Your task to perform on an android device: add a contact Image 0: 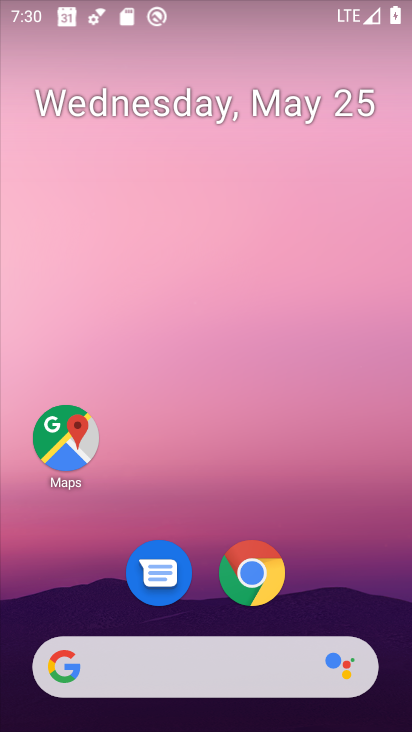
Step 0: click (254, 570)
Your task to perform on an android device: add a contact Image 1: 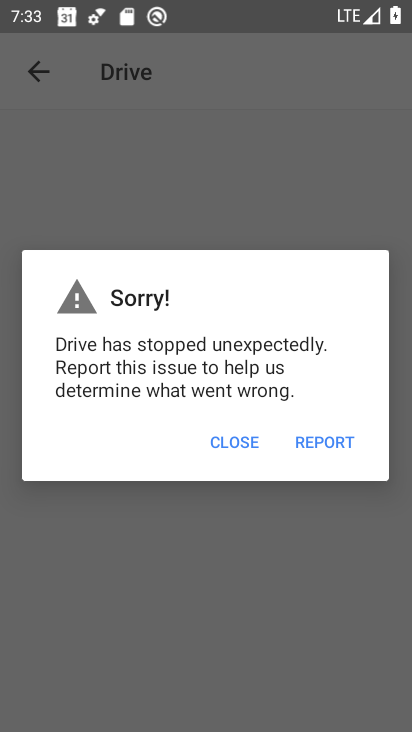
Step 1: press home button
Your task to perform on an android device: add a contact Image 2: 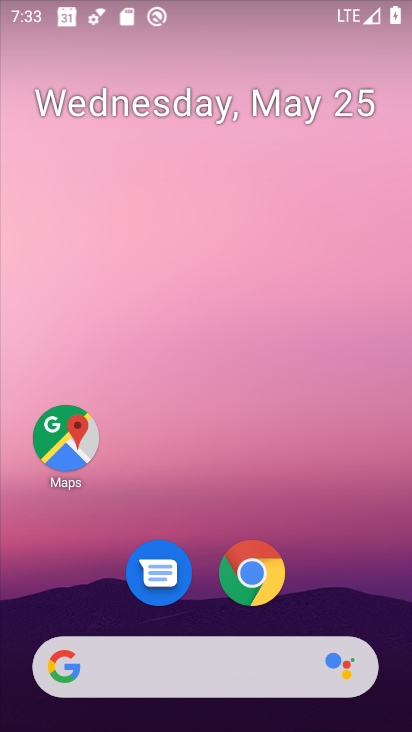
Step 2: drag from (387, 684) to (360, 122)
Your task to perform on an android device: add a contact Image 3: 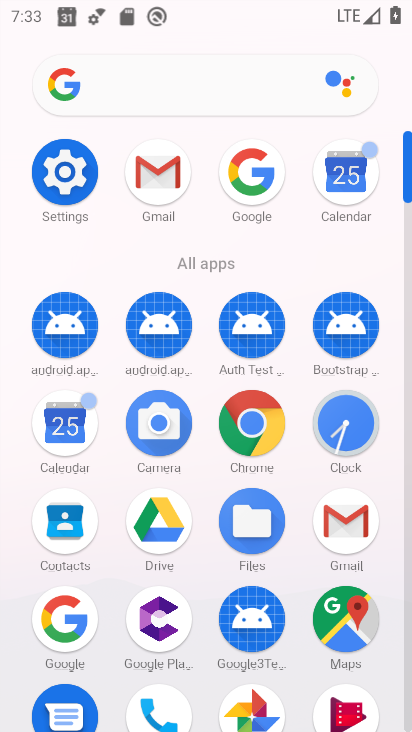
Step 3: click (71, 527)
Your task to perform on an android device: add a contact Image 4: 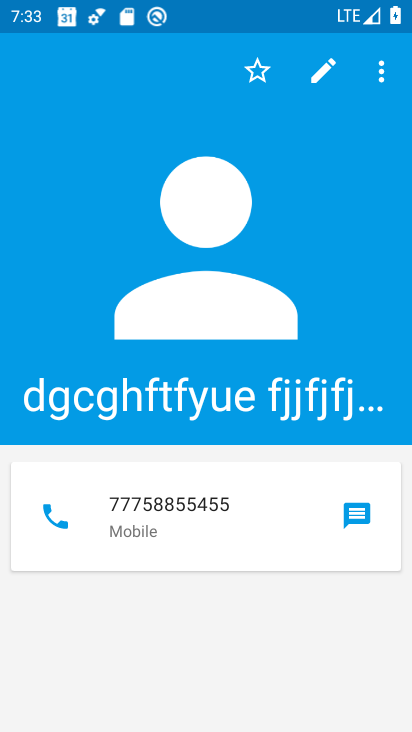
Step 4: press back button
Your task to perform on an android device: add a contact Image 5: 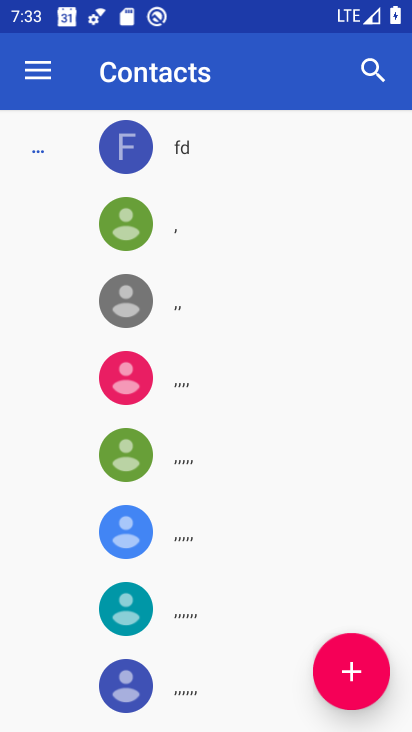
Step 5: click (328, 677)
Your task to perform on an android device: add a contact Image 6: 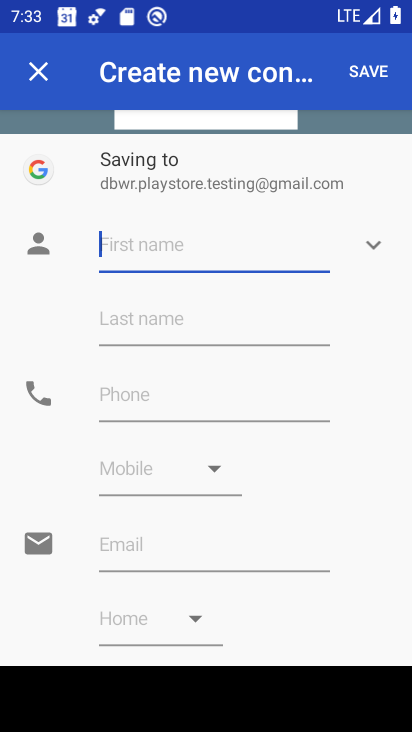
Step 6: type "sfdgvbn"
Your task to perform on an android device: add a contact Image 7: 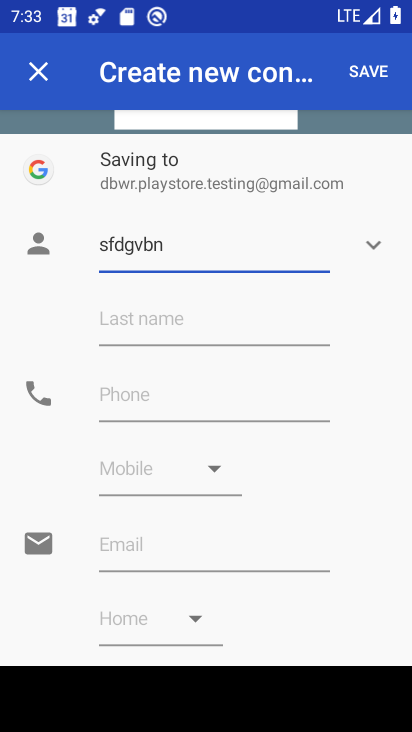
Step 7: click (240, 334)
Your task to perform on an android device: add a contact Image 8: 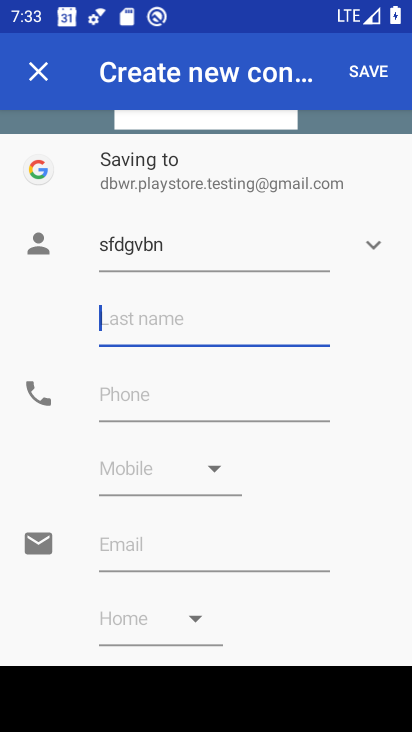
Step 8: type "rghm"
Your task to perform on an android device: add a contact Image 9: 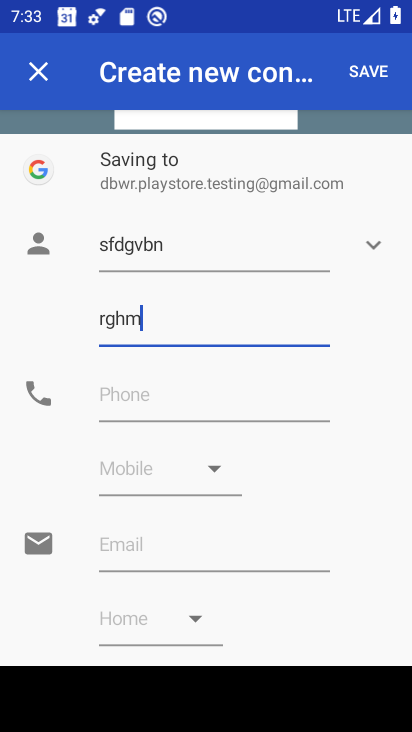
Step 9: click (173, 391)
Your task to perform on an android device: add a contact Image 10: 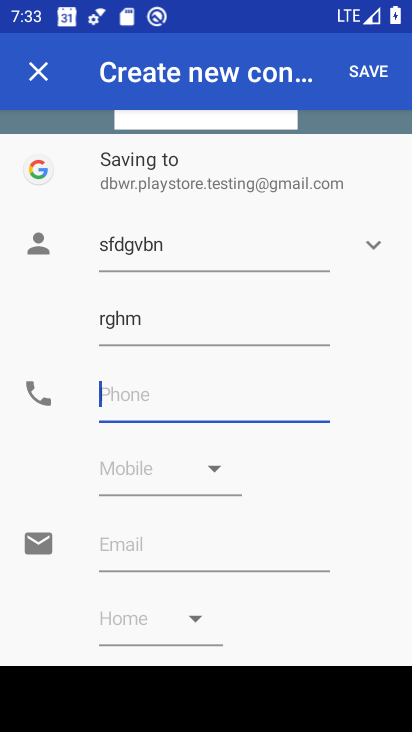
Step 10: type "2354678876543"
Your task to perform on an android device: add a contact Image 11: 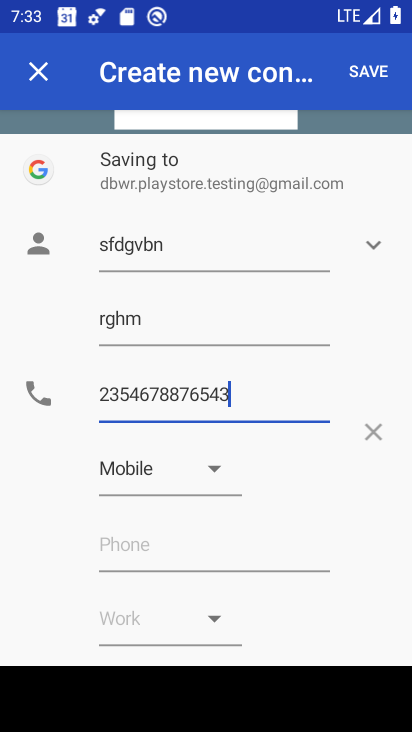
Step 11: click (369, 57)
Your task to perform on an android device: add a contact Image 12: 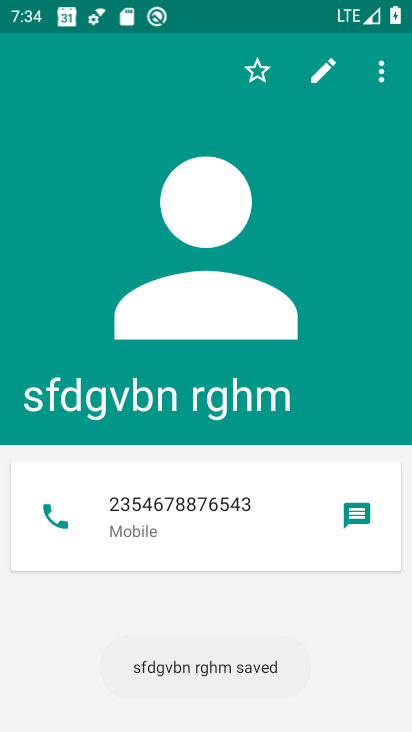
Step 12: task complete